Your task to perform on an android device: Open wifi settings Image 0: 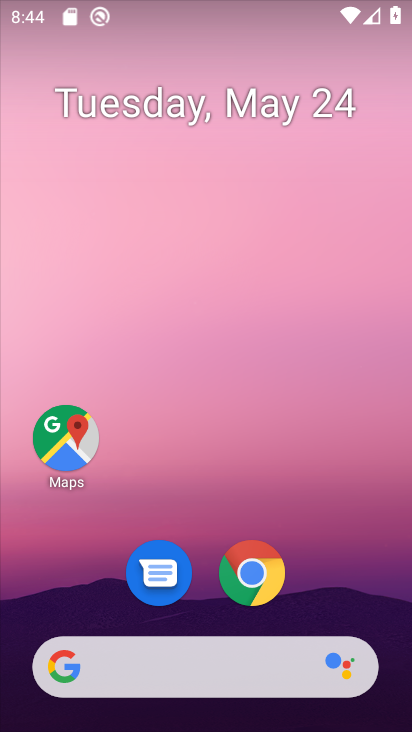
Step 0: drag from (71, 612) to (226, 209)
Your task to perform on an android device: Open wifi settings Image 1: 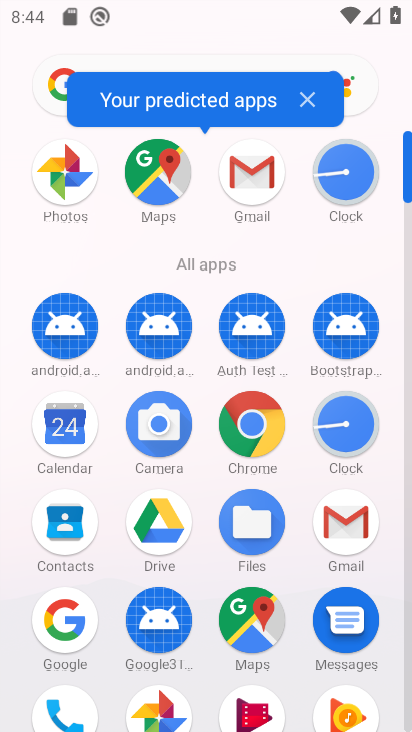
Step 1: drag from (143, 595) to (228, 338)
Your task to perform on an android device: Open wifi settings Image 2: 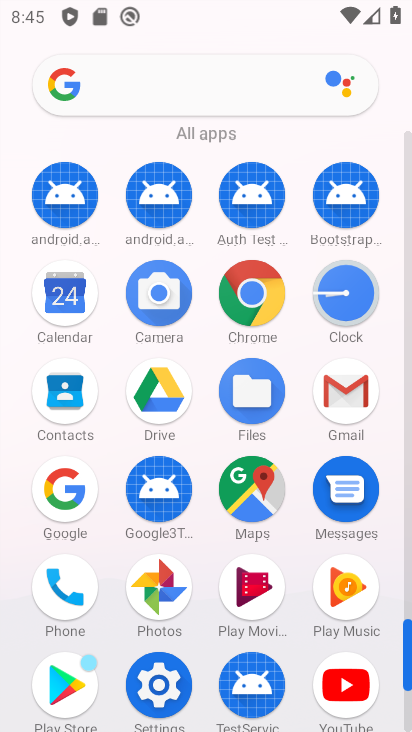
Step 2: click (165, 669)
Your task to perform on an android device: Open wifi settings Image 3: 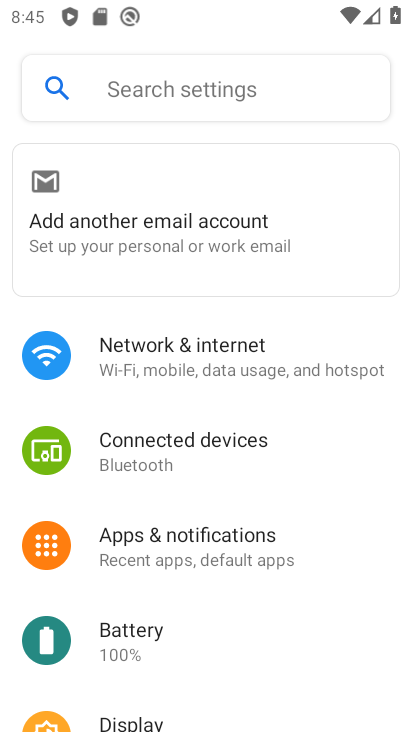
Step 3: click (226, 362)
Your task to perform on an android device: Open wifi settings Image 4: 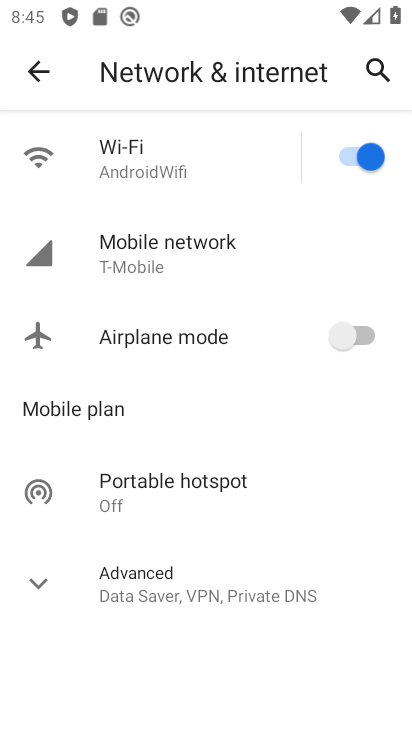
Step 4: click (193, 176)
Your task to perform on an android device: Open wifi settings Image 5: 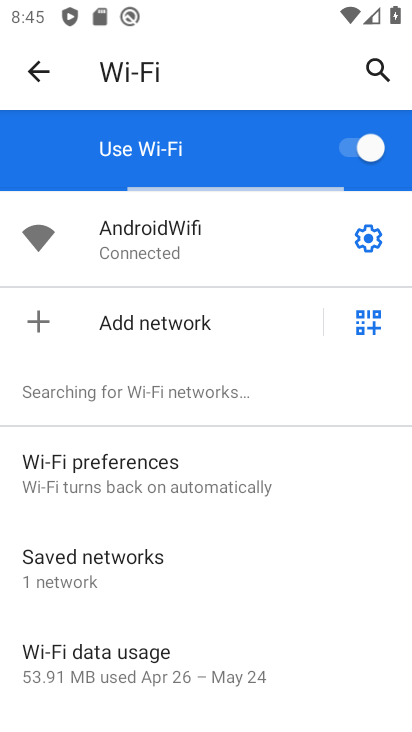
Step 5: task complete